Your task to perform on an android device: Go to display settings Image 0: 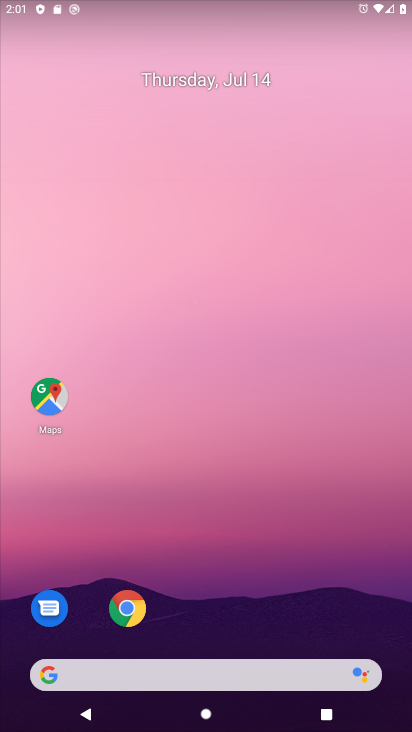
Step 0: drag from (237, 662) to (228, 133)
Your task to perform on an android device: Go to display settings Image 1: 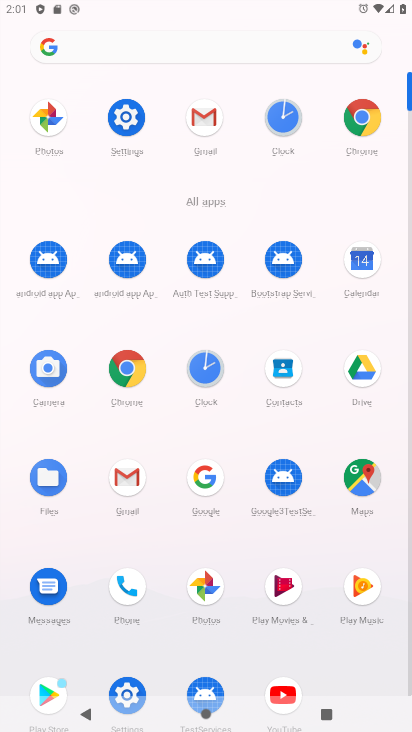
Step 1: click (121, 116)
Your task to perform on an android device: Go to display settings Image 2: 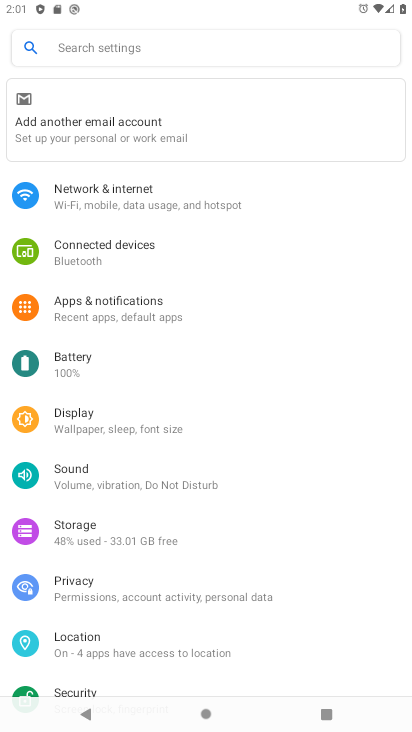
Step 2: click (84, 418)
Your task to perform on an android device: Go to display settings Image 3: 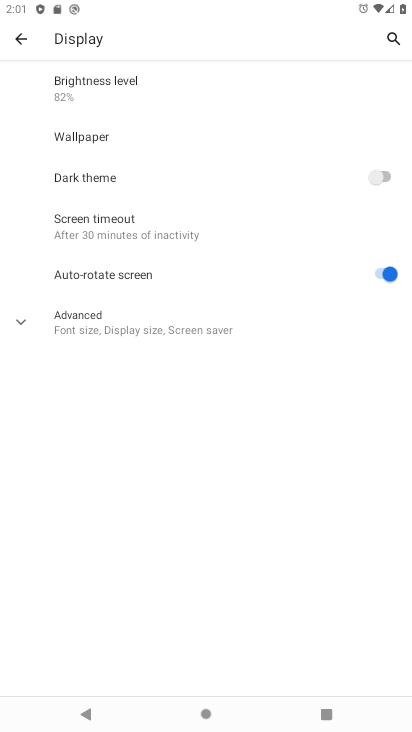
Step 3: task complete